Your task to perform on an android device: toggle pop-ups in chrome Image 0: 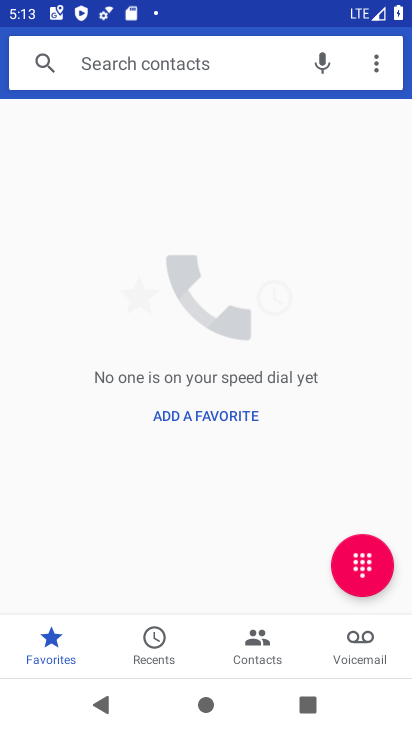
Step 0: press home button
Your task to perform on an android device: toggle pop-ups in chrome Image 1: 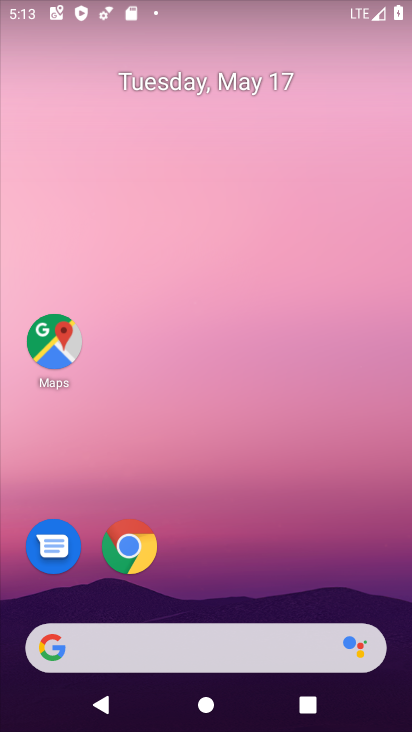
Step 1: click (128, 554)
Your task to perform on an android device: toggle pop-ups in chrome Image 2: 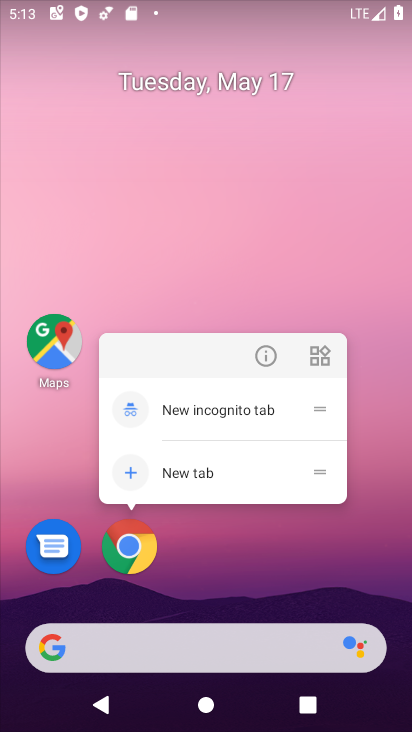
Step 2: click (130, 544)
Your task to perform on an android device: toggle pop-ups in chrome Image 3: 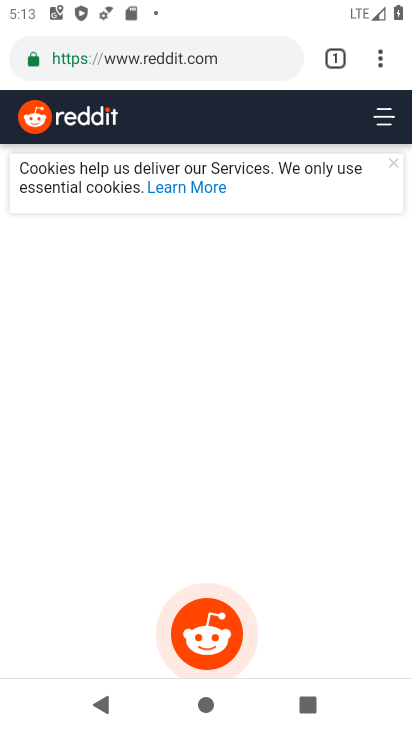
Step 3: click (383, 58)
Your task to perform on an android device: toggle pop-ups in chrome Image 4: 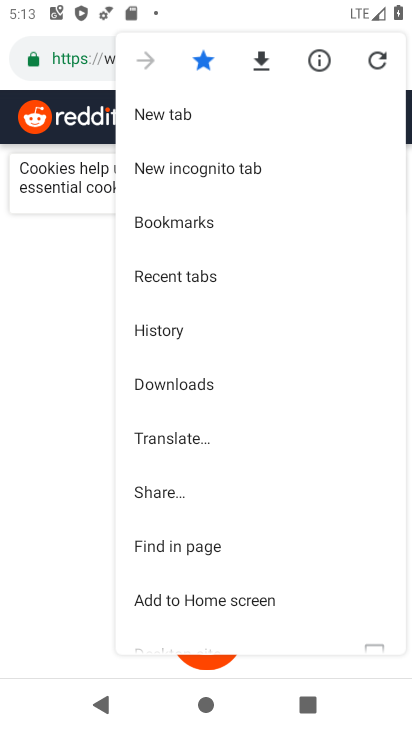
Step 4: drag from (214, 558) to (250, 242)
Your task to perform on an android device: toggle pop-ups in chrome Image 5: 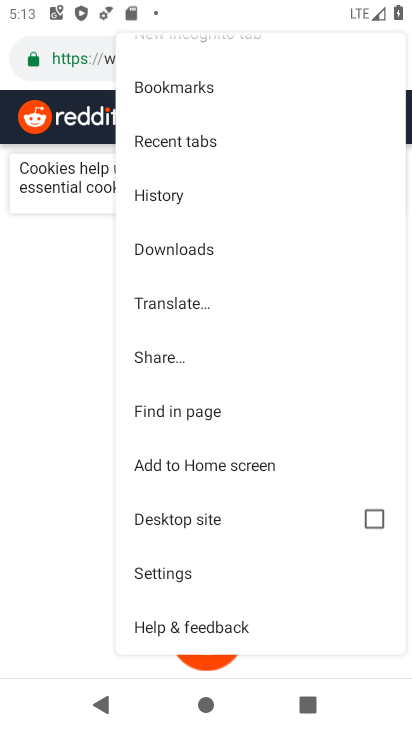
Step 5: click (181, 576)
Your task to perform on an android device: toggle pop-ups in chrome Image 6: 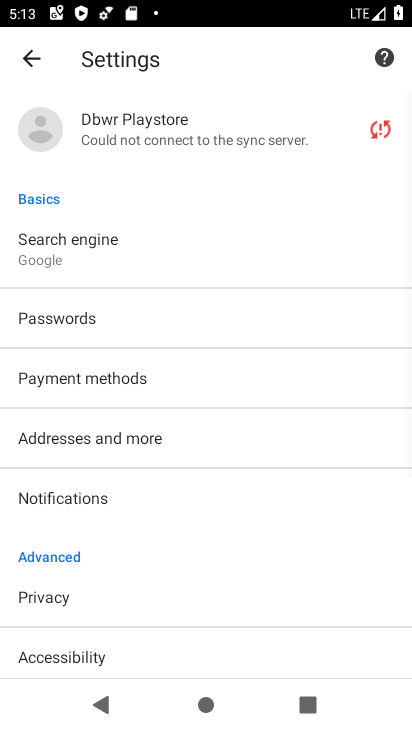
Step 6: drag from (125, 572) to (179, 250)
Your task to perform on an android device: toggle pop-ups in chrome Image 7: 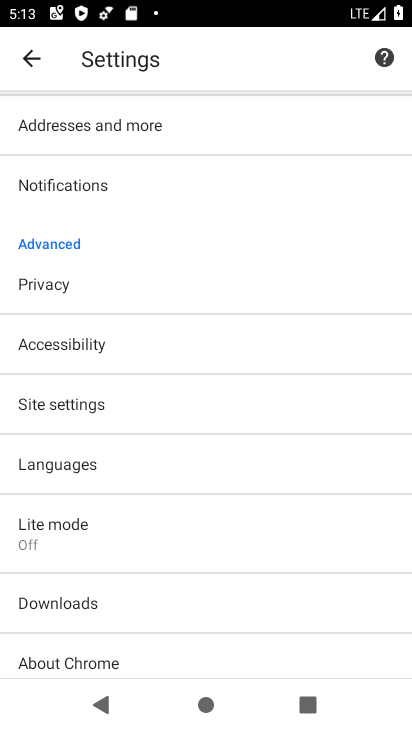
Step 7: click (71, 403)
Your task to perform on an android device: toggle pop-ups in chrome Image 8: 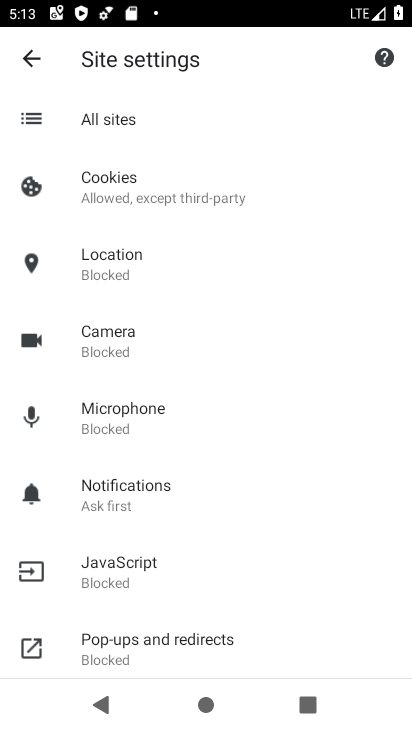
Step 8: click (146, 649)
Your task to perform on an android device: toggle pop-ups in chrome Image 9: 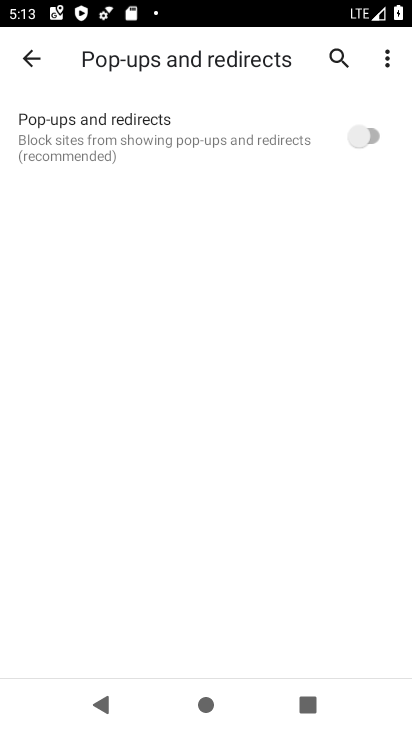
Step 9: click (373, 146)
Your task to perform on an android device: toggle pop-ups in chrome Image 10: 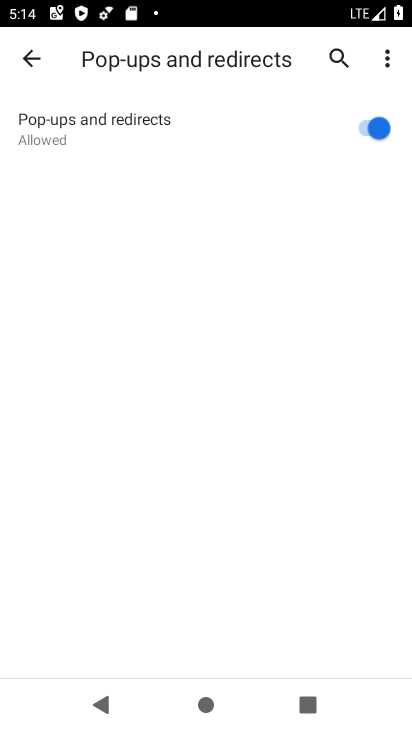
Step 10: task complete